Your task to perform on an android device: change timer sound Image 0: 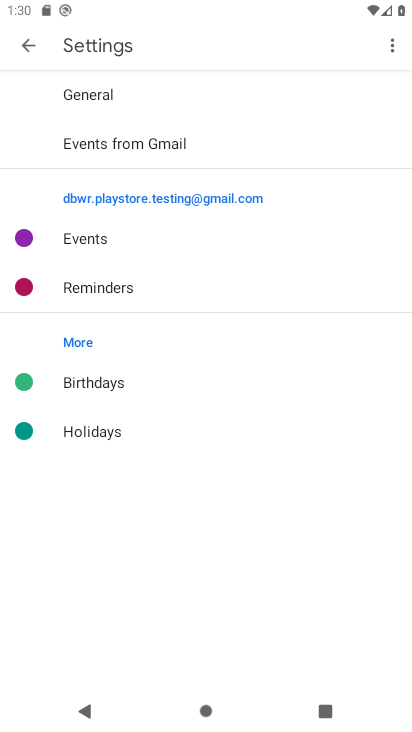
Step 0: press home button
Your task to perform on an android device: change timer sound Image 1: 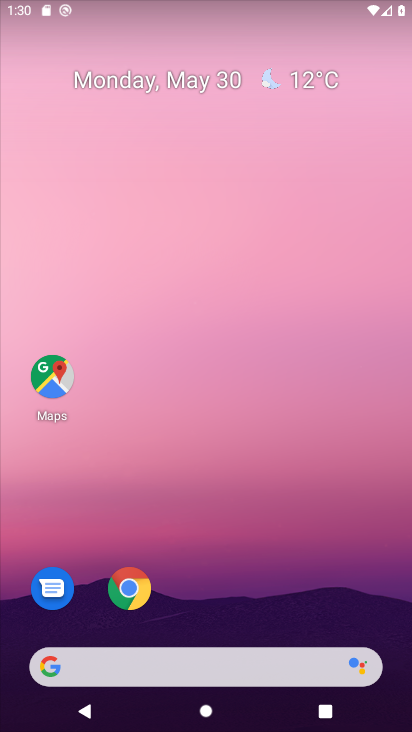
Step 1: drag from (194, 607) to (332, 56)
Your task to perform on an android device: change timer sound Image 2: 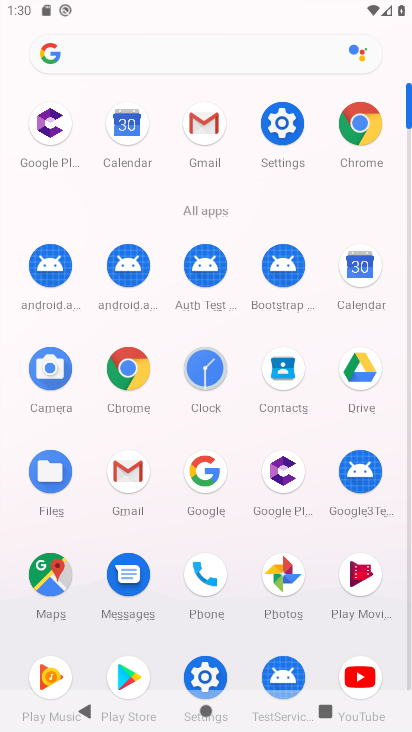
Step 2: click (217, 391)
Your task to perform on an android device: change timer sound Image 3: 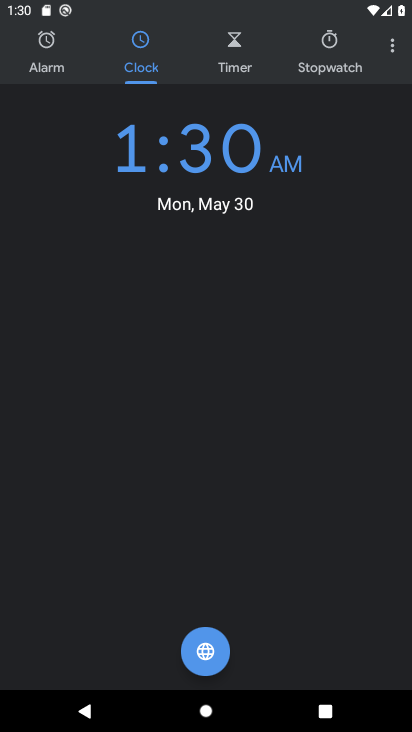
Step 3: click (391, 53)
Your task to perform on an android device: change timer sound Image 4: 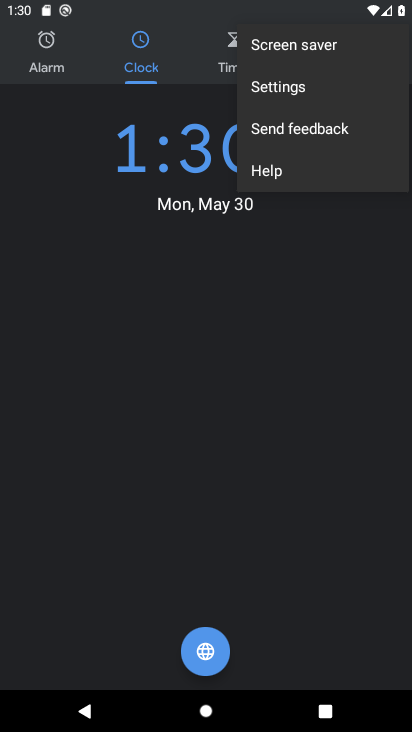
Step 4: click (327, 101)
Your task to perform on an android device: change timer sound Image 5: 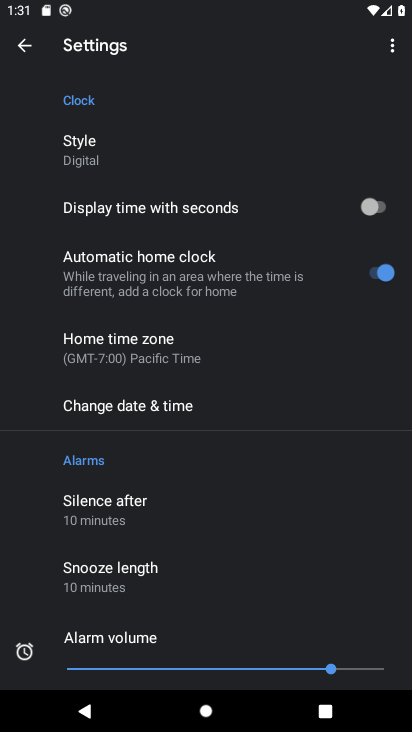
Step 5: drag from (152, 541) to (203, 147)
Your task to perform on an android device: change timer sound Image 6: 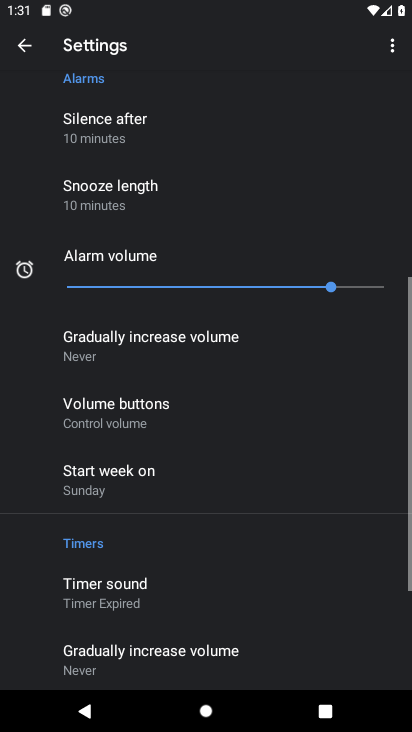
Step 6: click (157, 586)
Your task to perform on an android device: change timer sound Image 7: 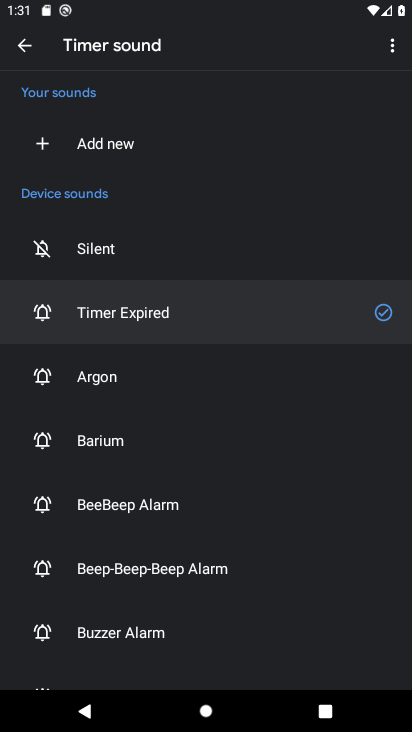
Step 7: click (162, 403)
Your task to perform on an android device: change timer sound Image 8: 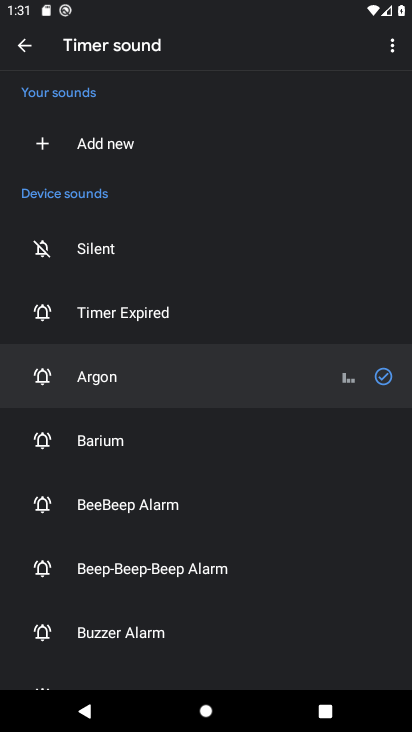
Step 8: task complete